Your task to perform on an android device: check the backup settings in the google photos Image 0: 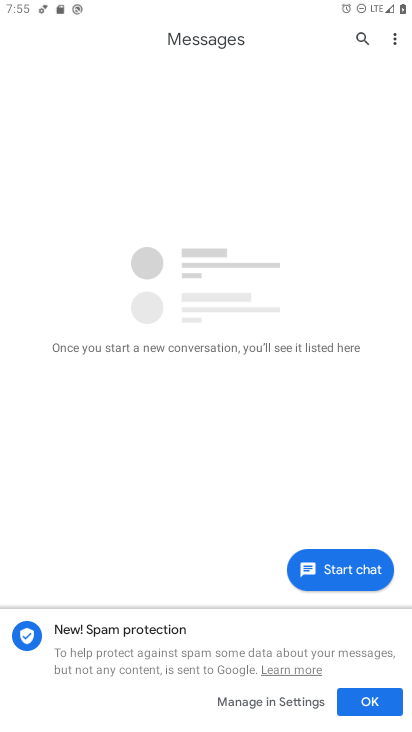
Step 0: press home button
Your task to perform on an android device: check the backup settings in the google photos Image 1: 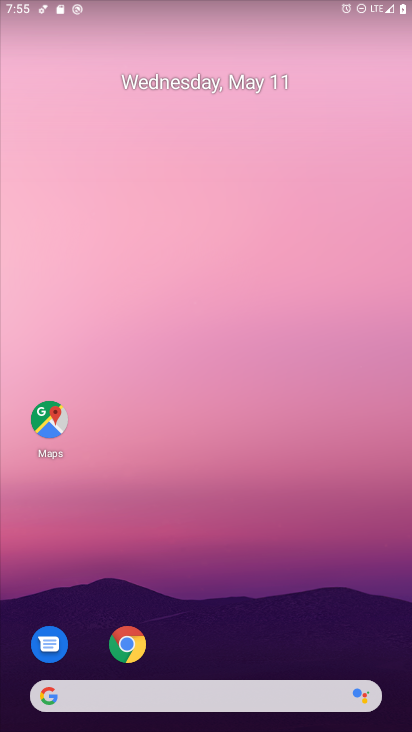
Step 1: drag from (240, 543) to (104, 101)
Your task to perform on an android device: check the backup settings in the google photos Image 2: 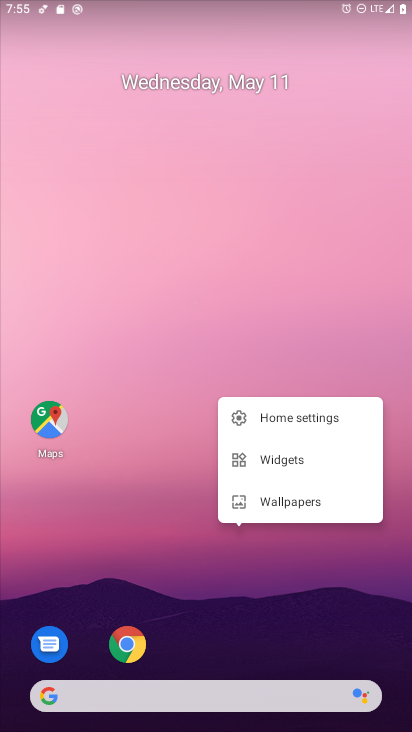
Step 2: click (167, 444)
Your task to perform on an android device: check the backup settings in the google photos Image 3: 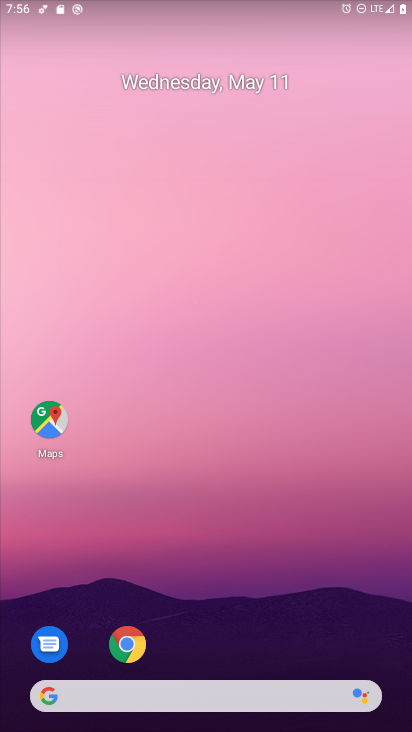
Step 3: drag from (218, 630) to (163, 13)
Your task to perform on an android device: check the backup settings in the google photos Image 4: 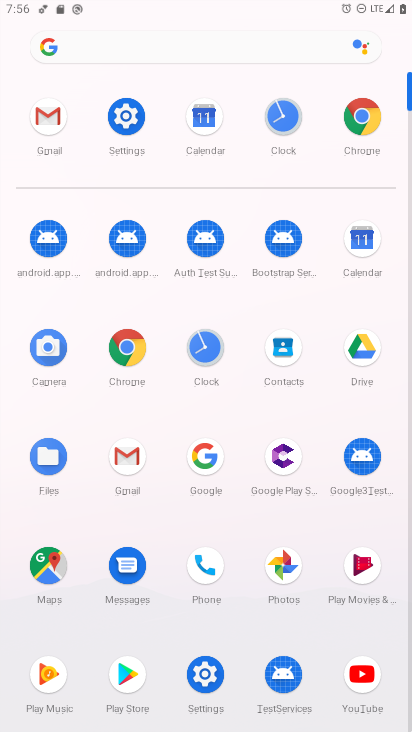
Step 4: click (283, 572)
Your task to perform on an android device: check the backup settings in the google photos Image 5: 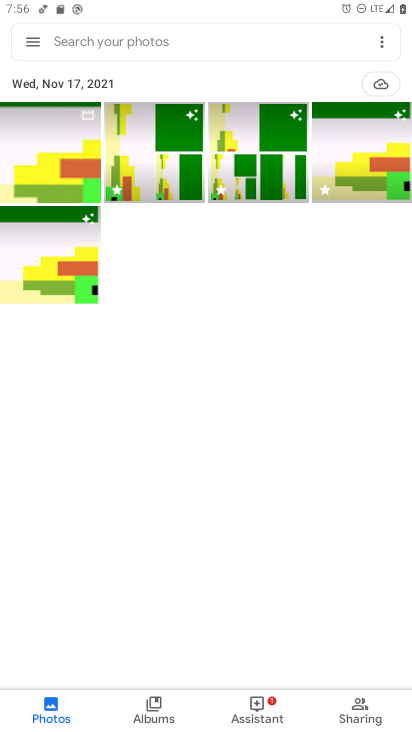
Step 5: click (33, 40)
Your task to perform on an android device: check the backup settings in the google photos Image 6: 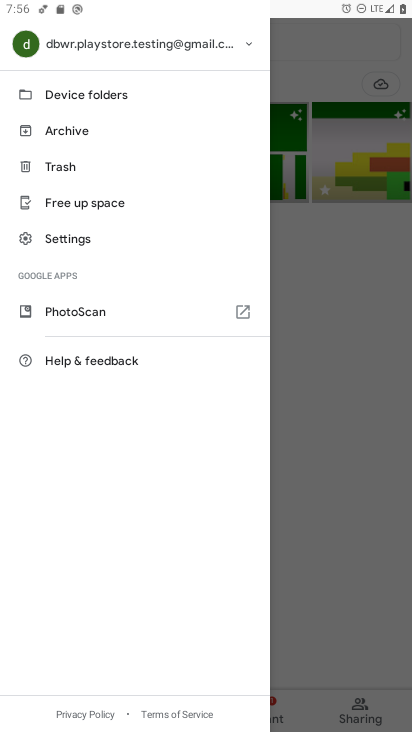
Step 6: click (70, 239)
Your task to perform on an android device: check the backup settings in the google photos Image 7: 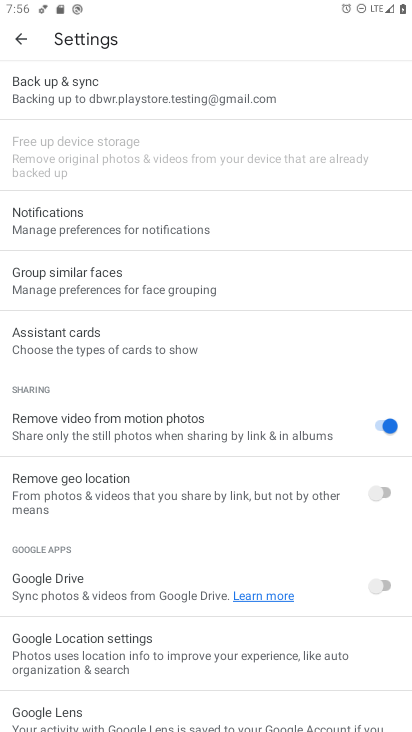
Step 7: click (56, 80)
Your task to perform on an android device: check the backup settings in the google photos Image 8: 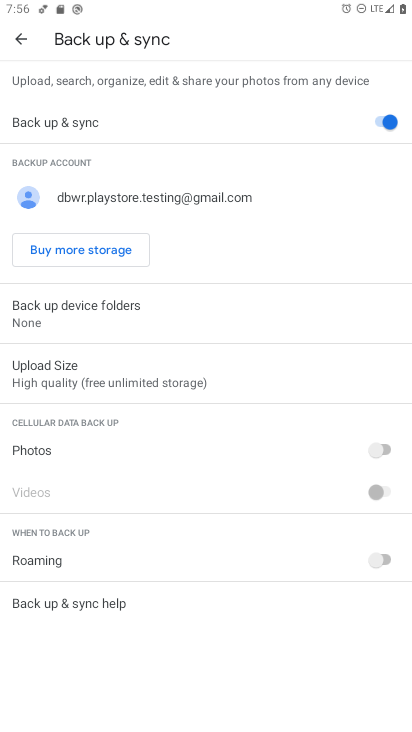
Step 8: task complete